Your task to perform on an android device: Search for Mexican restaurants on Maps Image 0: 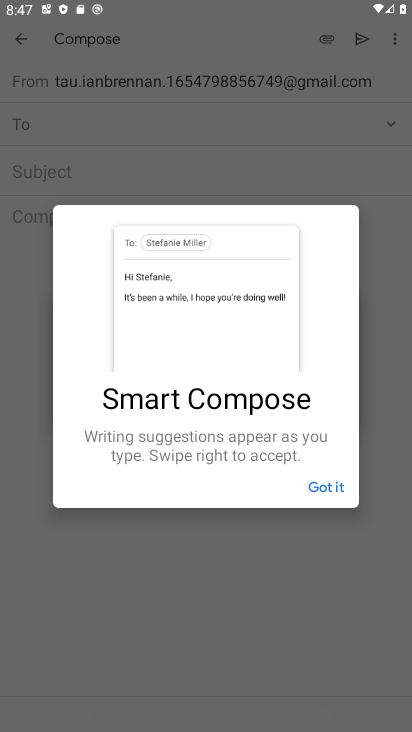
Step 0: press home button
Your task to perform on an android device: Search for Mexican restaurants on Maps Image 1: 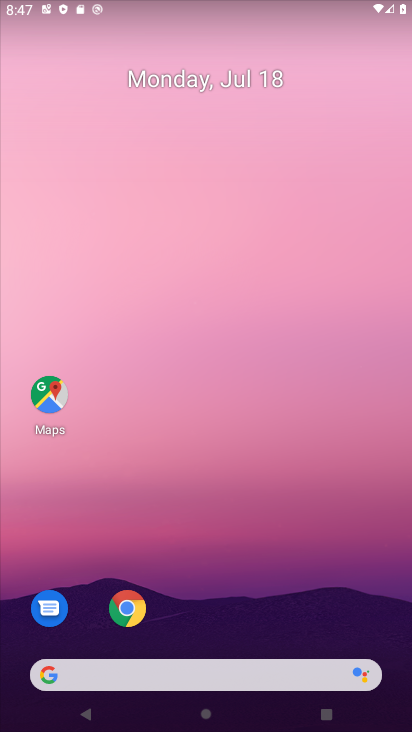
Step 1: drag from (249, 713) to (249, 204)
Your task to perform on an android device: Search for Mexican restaurants on Maps Image 2: 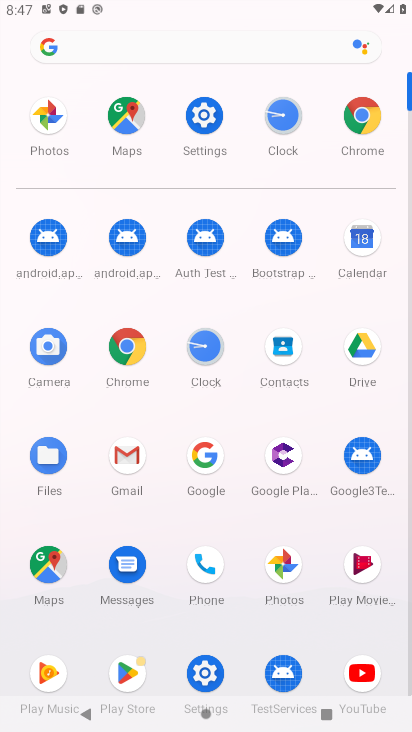
Step 2: click (54, 563)
Your task to perform on an android device: Search for Mexican restaurants on Maps Image 3: 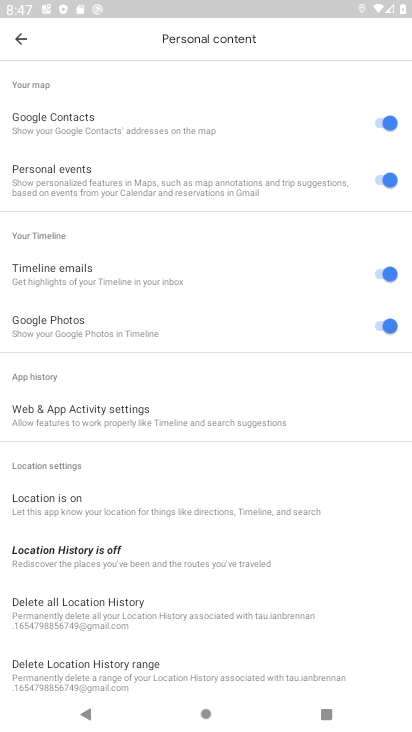
Step 3: click (25, 41)
Your task to perform on an android device: Search for Mexican restaurants on Maps Image 4: 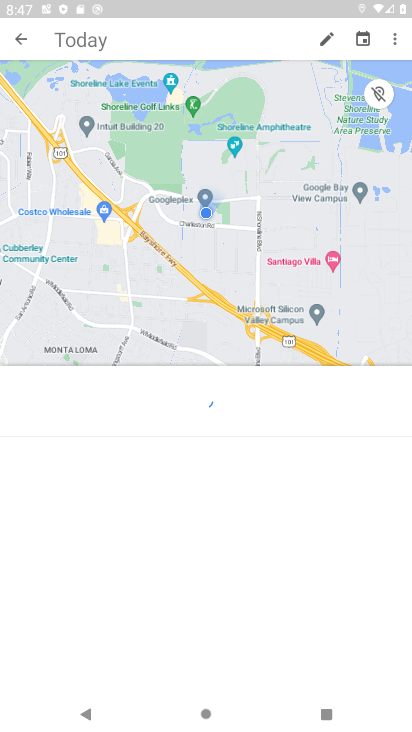
Step 4: click (22, 36)
Your task to perform on an android device: Search for Mexican restaurants on Maps Image 5: 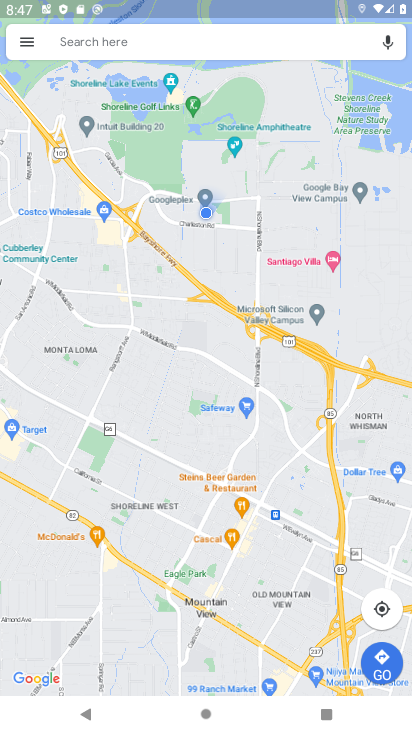
Step 5: click (210, 45)
Your task to perform on an android device: Search for Mexican restaurants on Maps Image 6: 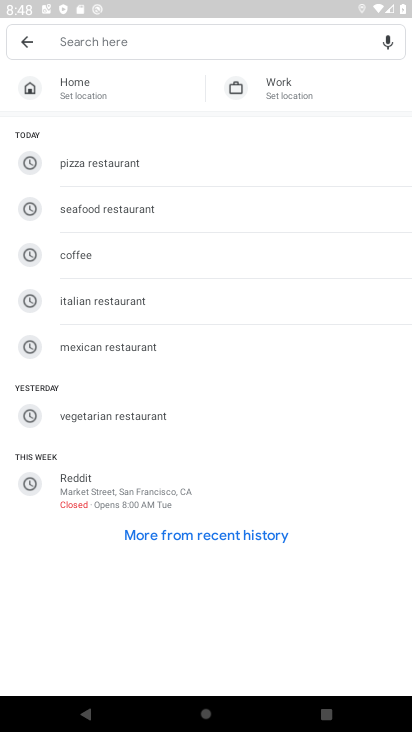
Step 6: type "Mexican restaurants"
Your task to perform on an android device: Search for Mexican restaurants on Maps Image 7: 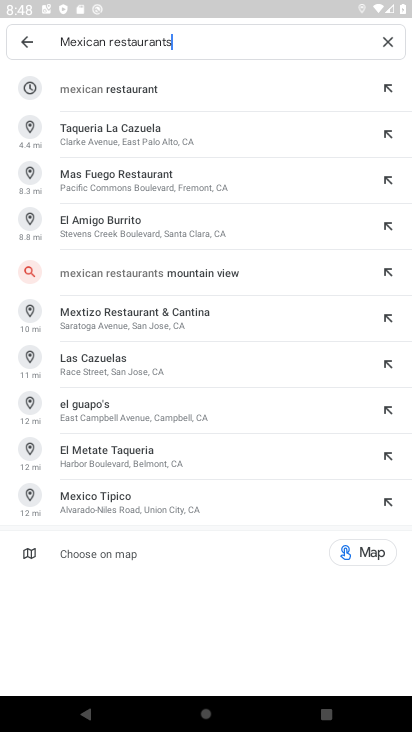
Step 7: click (97, 91)
Your task to perform on an android device: Search for Mexican restaurants on Maps Image 8: 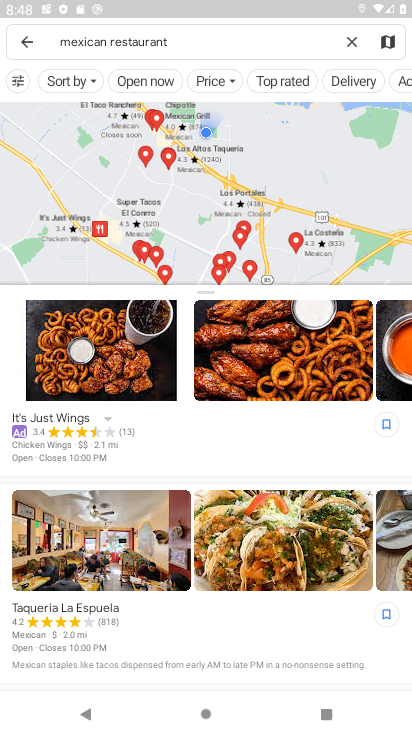
Step 8: task complete